Your task to perform on an android device: install app "Pandora - Music & Podcasts" Image 0: 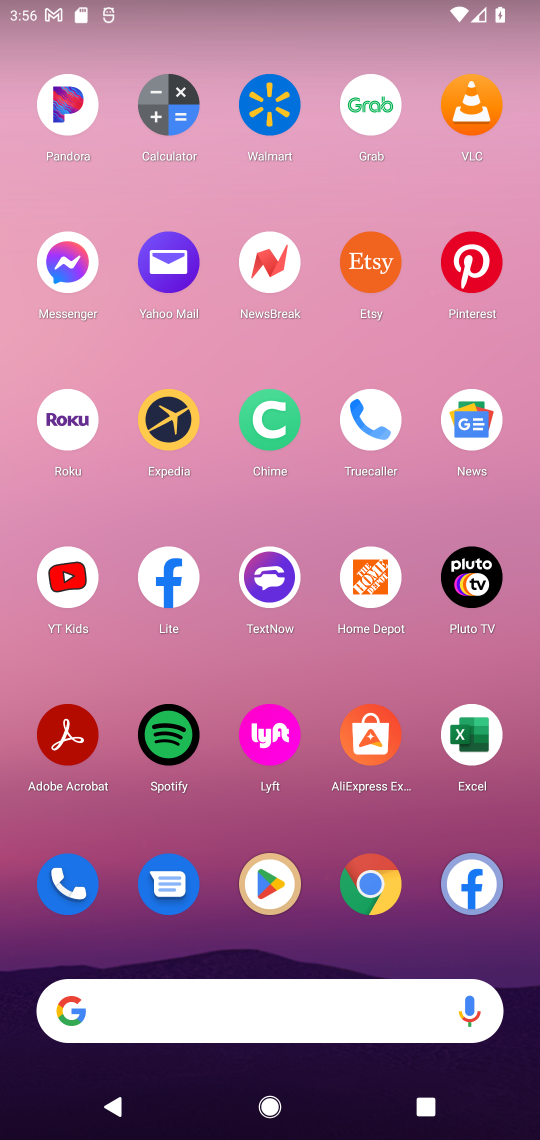
Step 0: click (268, 886)
Your task to perform on an android device: install app "Pandora - Music & Podcasts" Image 1: 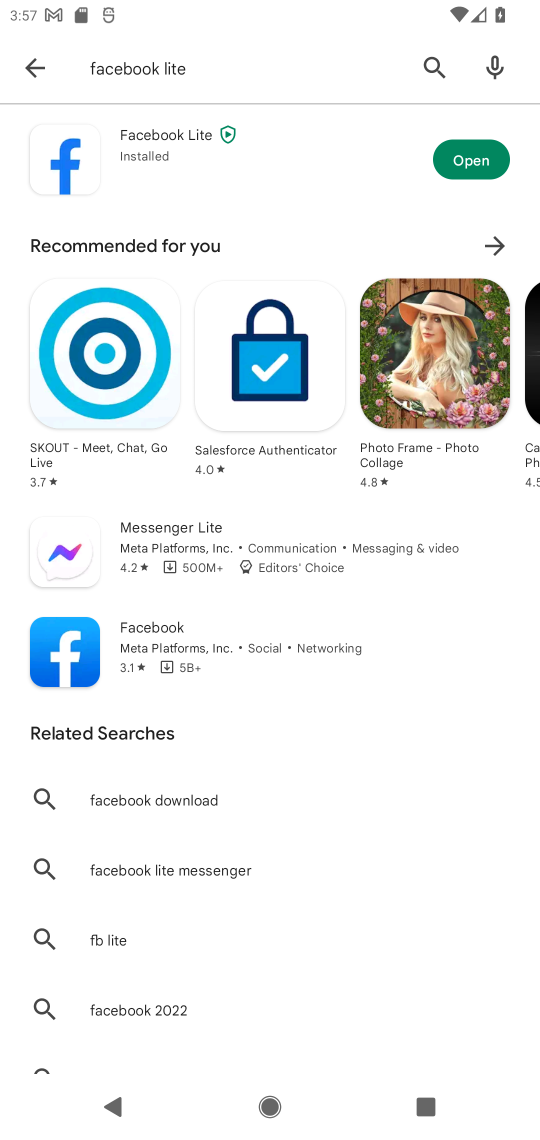
Step 1: click (228, 71)
Your task to perform on an android device: install app "Pandora - Music & Podcasts" Image 2: 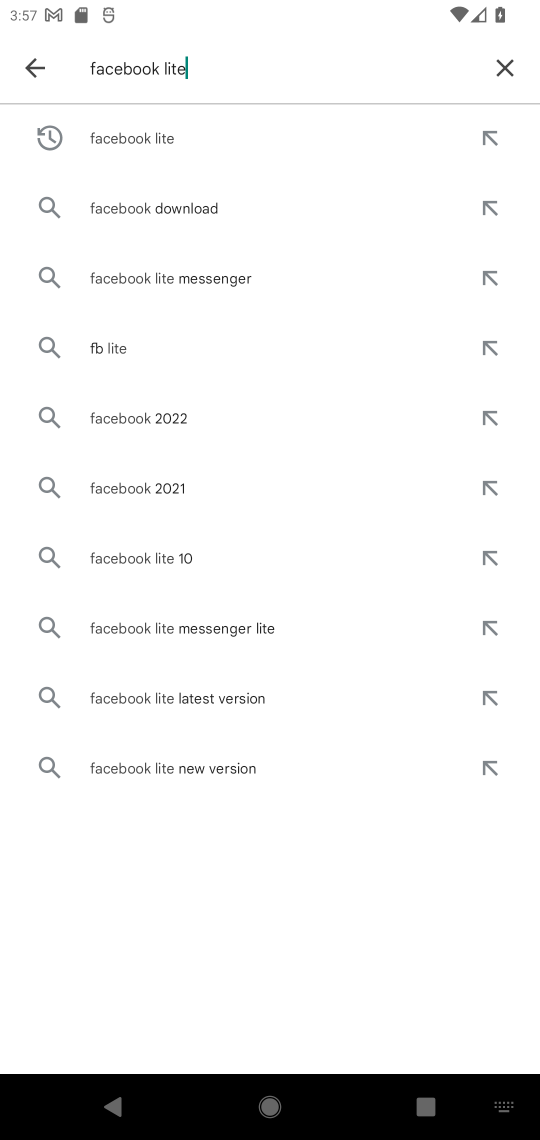
Step 2: click (499, 75)
Your task to perform on an android device: install app "Pandora - Music & Podcasts" Image 3: 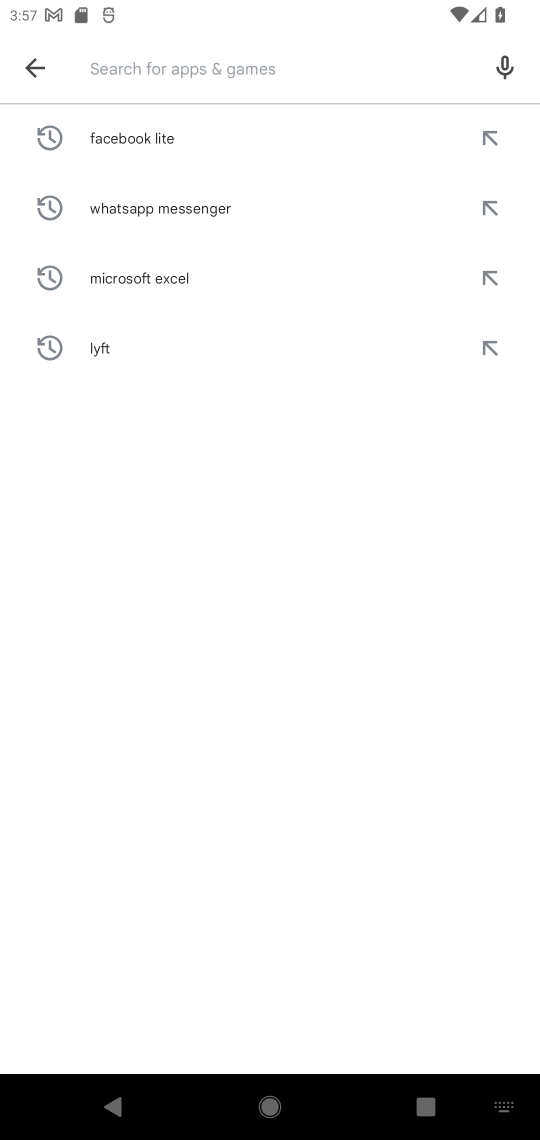
Step 3: type "Pandora"
Your task to perform on an android device: install app "Pandora - Music & Podcasts" Image 4: 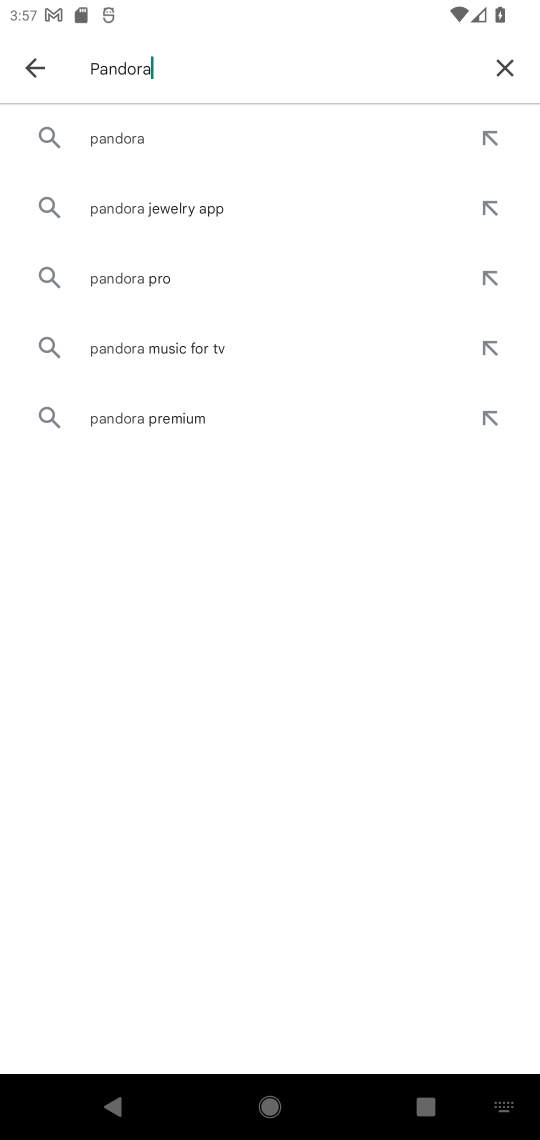
Step 4: click (136, 132)
Your task to perform on an android device: install app "Pandora - Music & Podcasts" Image 5: 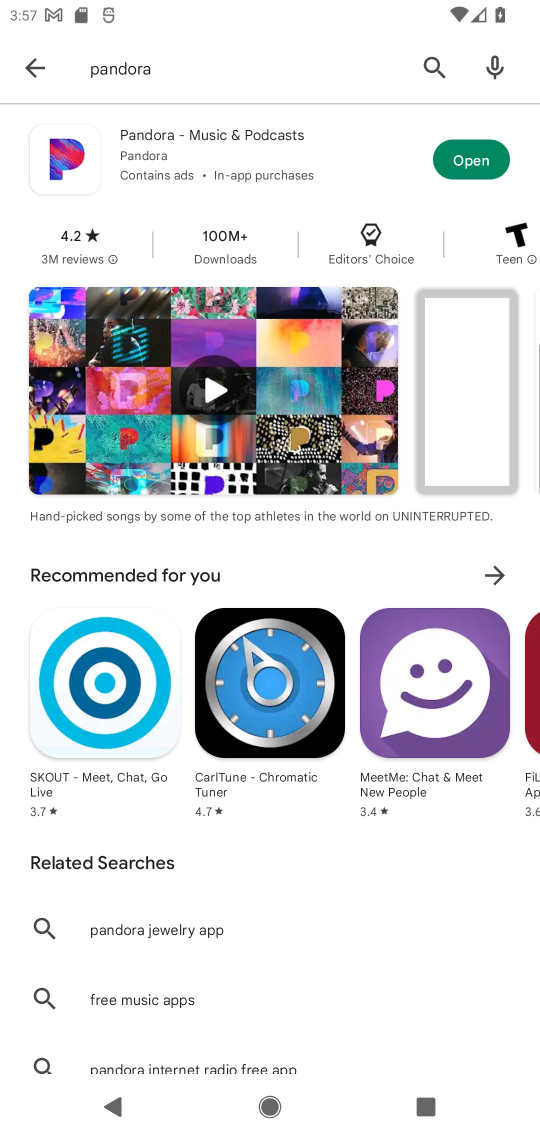
Step 5: task complete